Your task to perform on an android device: open chrome privacy settings Image 0: 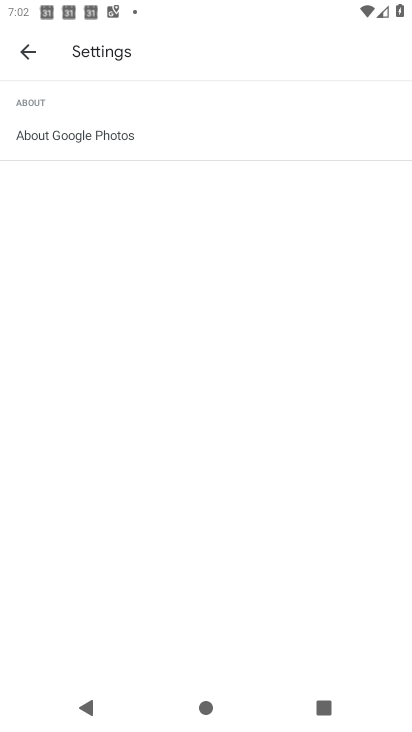
Step 0: press home button
Your task to perform on an android device: open chrome privacy settings Image 1: 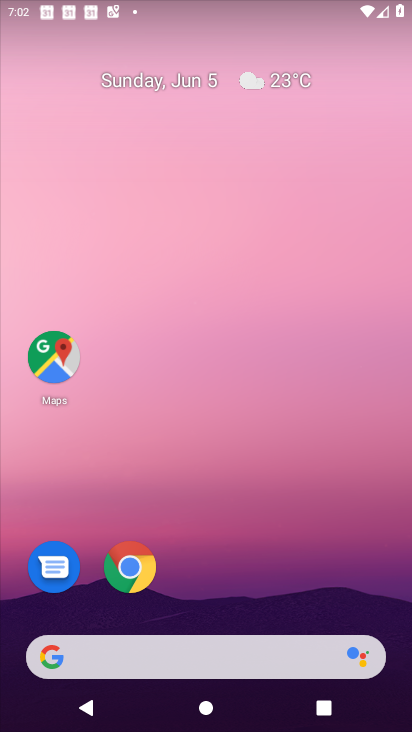
Step 1: drag from (405, 637) to (233, 4)
Your task to perform on an android device: open chrome privacy settings Image 2: 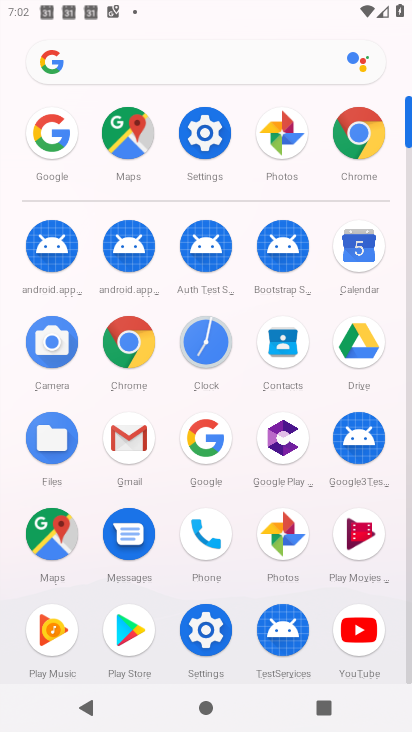
Step 2: click (356, 124)
Your task to perform on an android device: open chrome privacy settings Image 3: 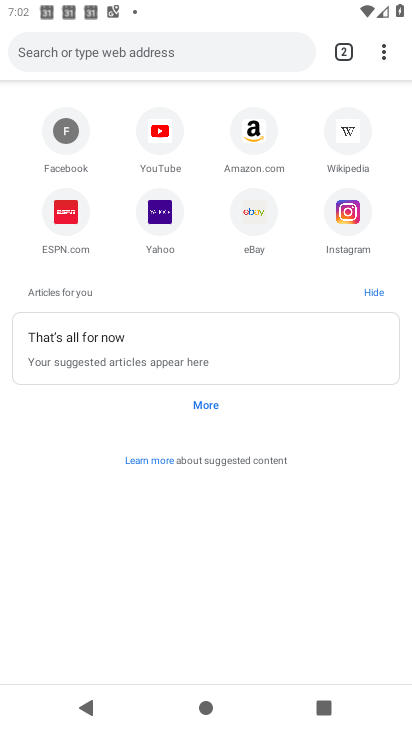
Step 3: click (385, 50)
Your task to perform on an android device: open chrome privacy settings Image 4: 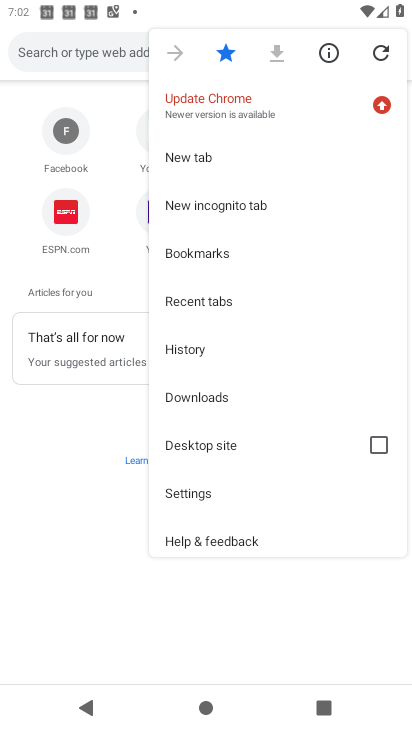
Step 4: click (205, 504)
Your task to perform on an android device: open chrome privacy settings Image 5: 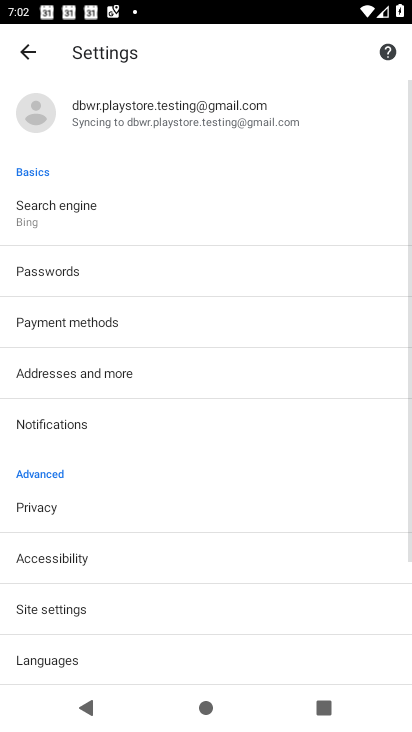
Step 5: click (88, 518)
Your task to perform on an android device: open chrome privacy settings Image 6: 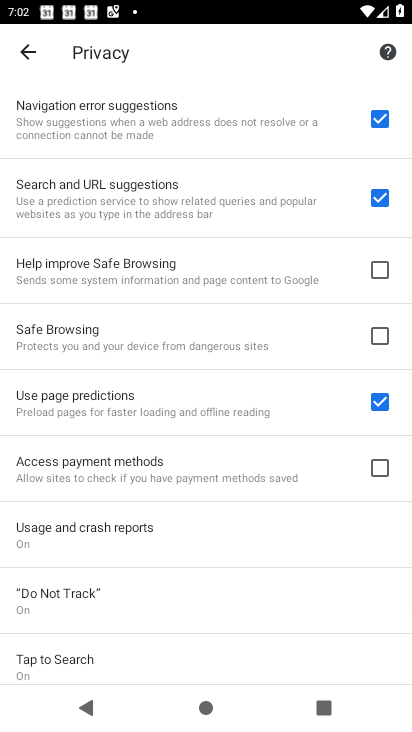
Step 6: task complete